Your task to perform on an android device: refresh tabs in the chrome app Image 0: 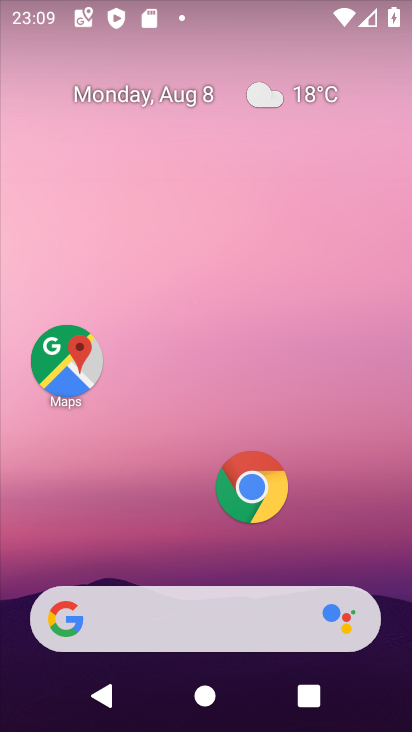
Step 0: click (245, 499)
Your task to perform on an android device: refresh tabs in the chrome app Image 1: 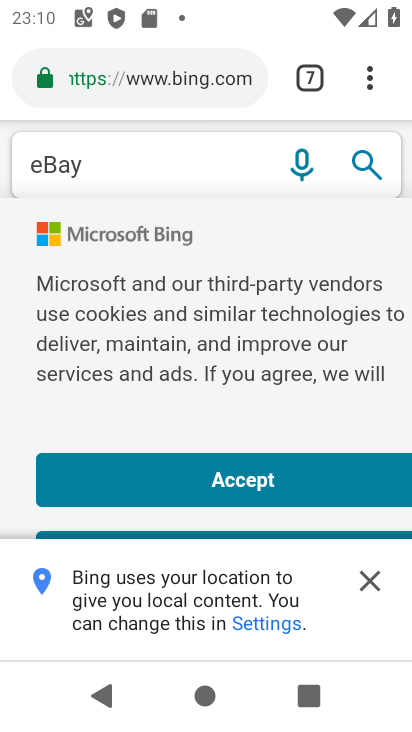
Step 1: click (368, 84)
Your task to perform on an android device: refresh tabs in the chrome app Image 2: 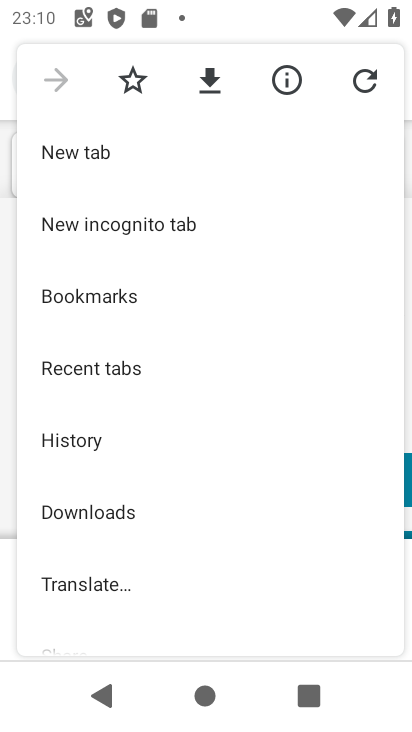
Step 2: click (372, 81)
Your task to perform on an android device: refresh tabs in the chrome app Image 3: 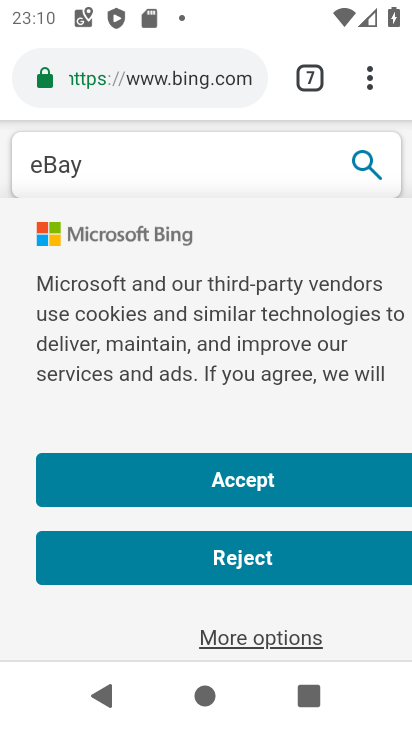
Step 3: task complete